Your task to perform on an android device: Check the news Image 0: 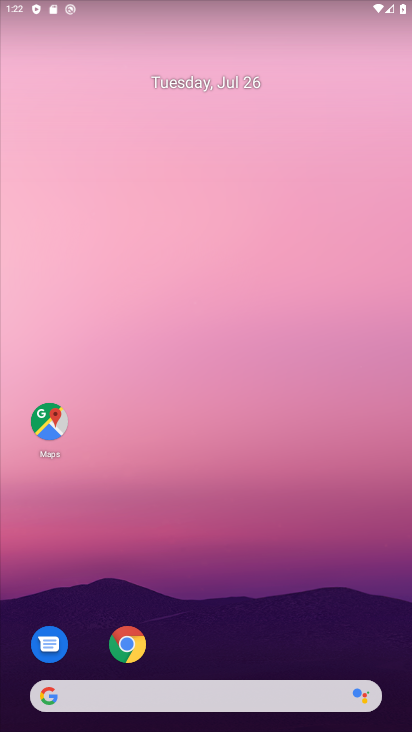
Step 0: drag from (61, 290) to (400, 319)
Your task to perform on an android device: Check the news Image 1: 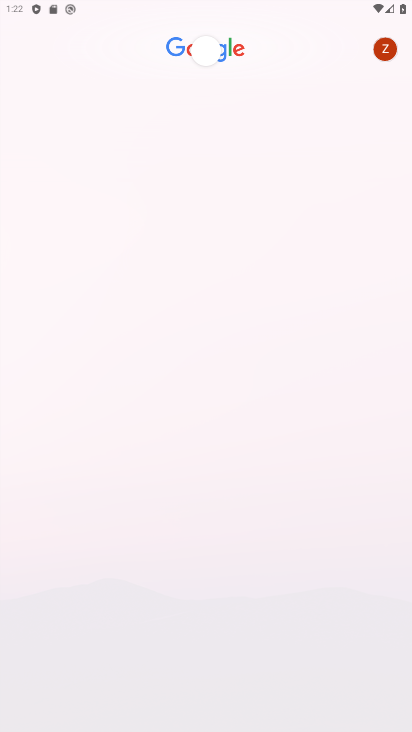
Step 1: task complete